Your task to perform on an android device: Add "lg ultragear" to the cart on ebay, then select checkout. Image 0: 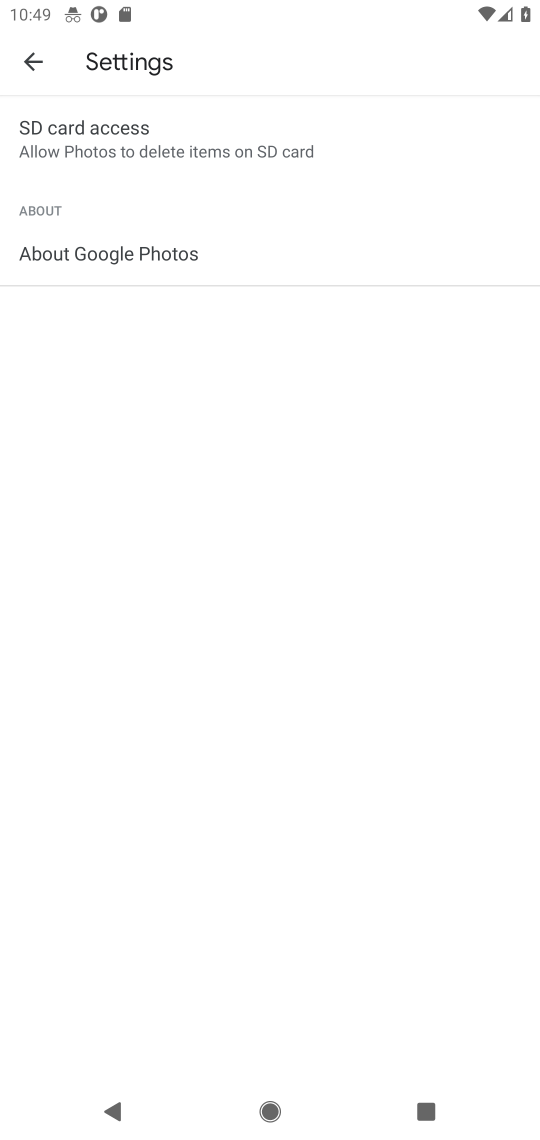
Step 0: press home button
Your task to perform on an android device: Add "lg ultragear" to the cart on ebay, then select checkout. Image 1: 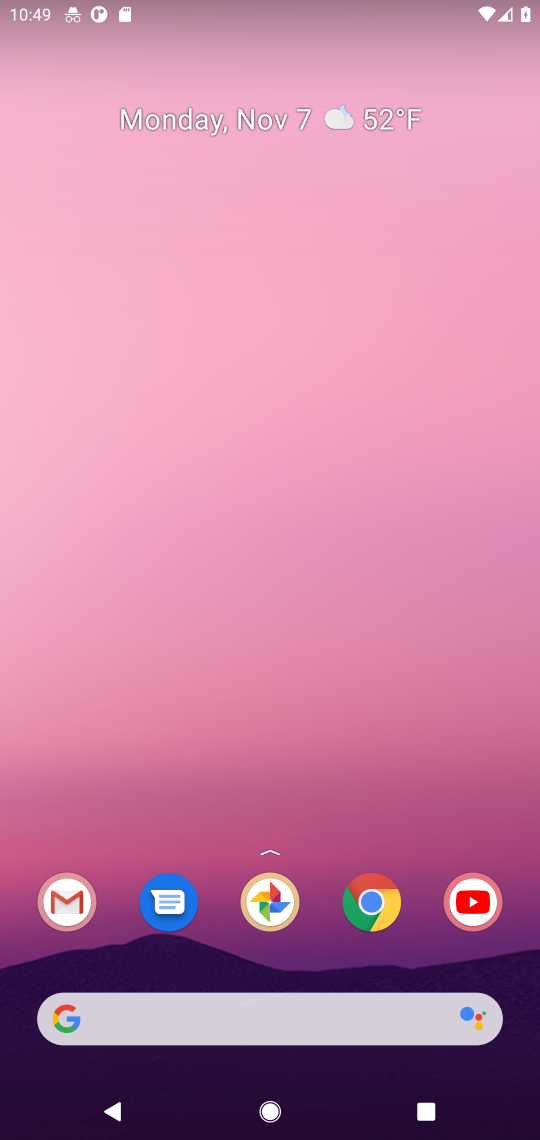
Step 1: click (372, 899)
Your task to perform on an android device: Add "lg ultragear" to the cart on ebay, then select checkout. Image 2: 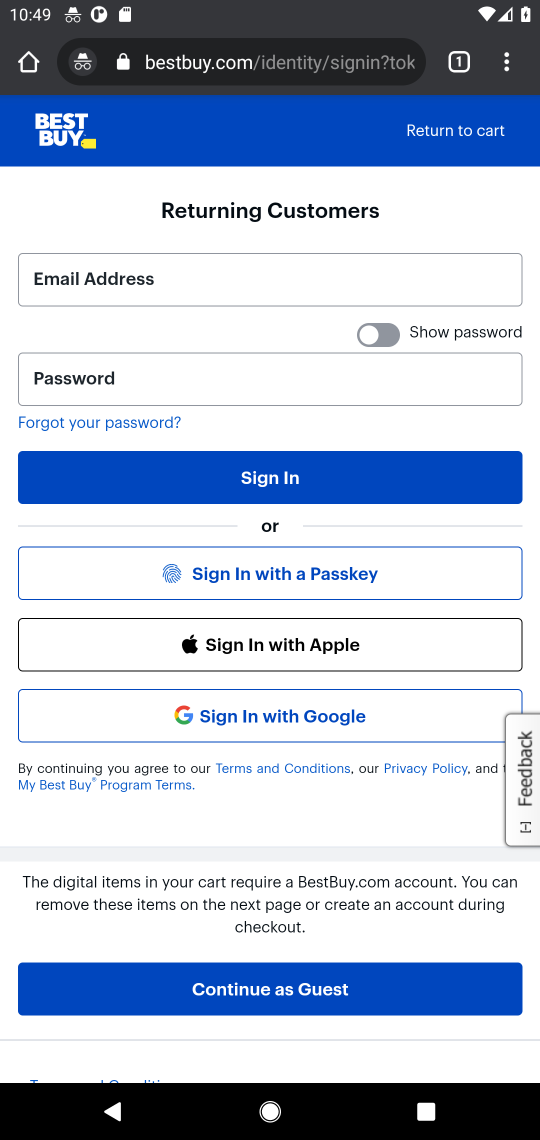
Step 2: click (182, 58)
Your task to perform on an android device: Add "lg ultragear" to the cart on ebay, then select checkout. Image 3: 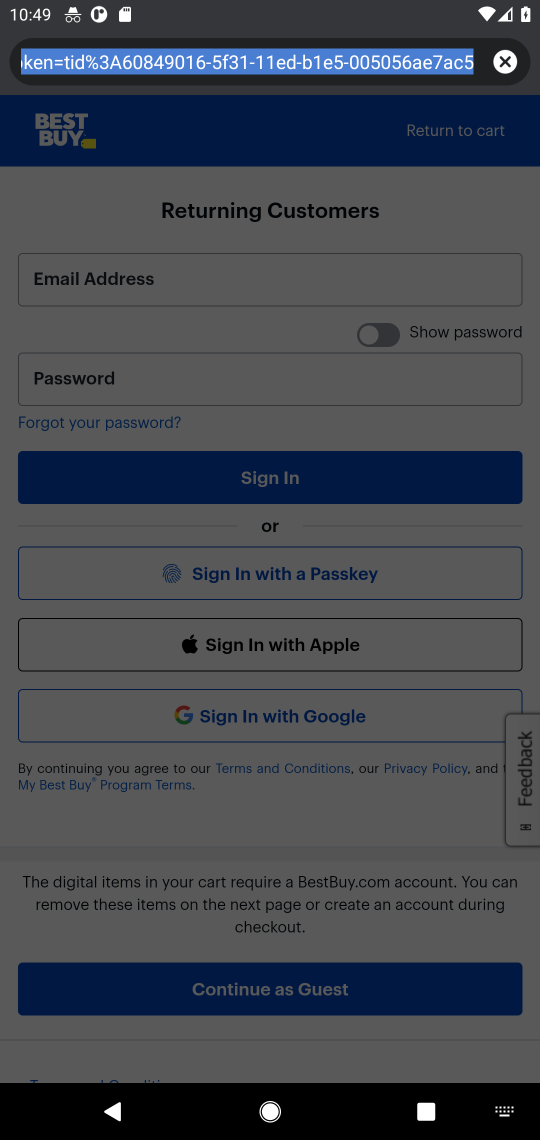
Step 3: type "ebay.com"
Your task to perform on an android device: Add "lg ultragear" to the cart on ebay, then select checkout. Image 4: 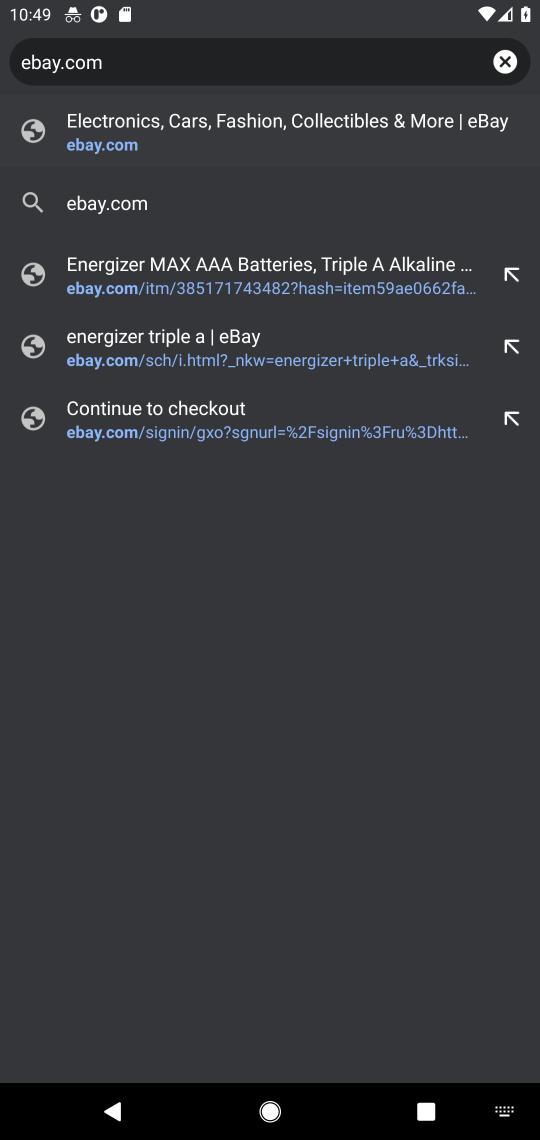
Step 4: click (107, 139)
Your task to perform on an android device: Add "lg ultragear" to the cart on ebay, then select checkout. Image 5: 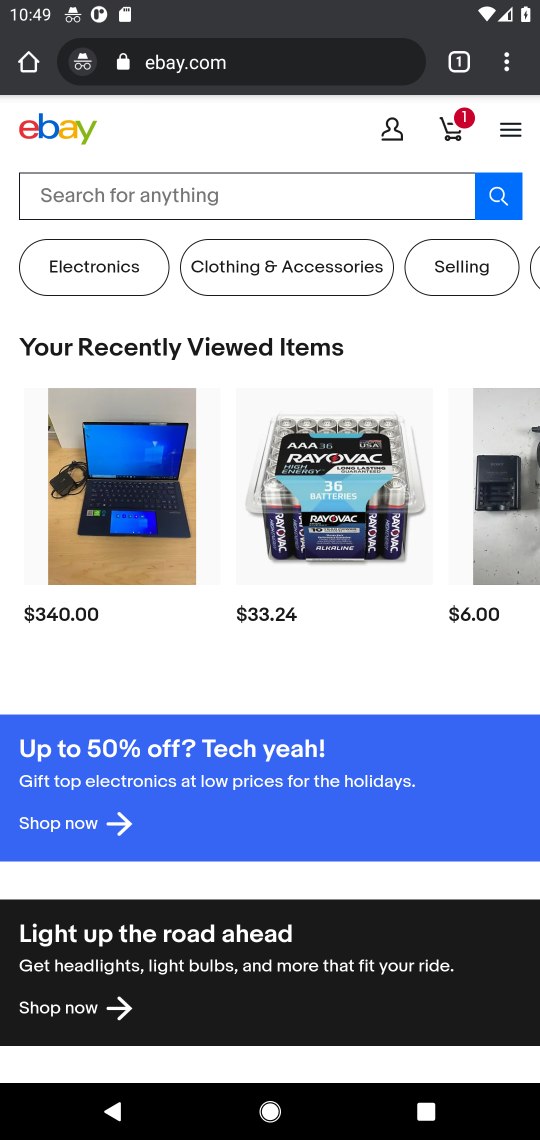
Step 5: click (70, 202)
Your task to perform on an android device: Add "lg ultragear" to the cart on ebay, then select checkout. Image 6: 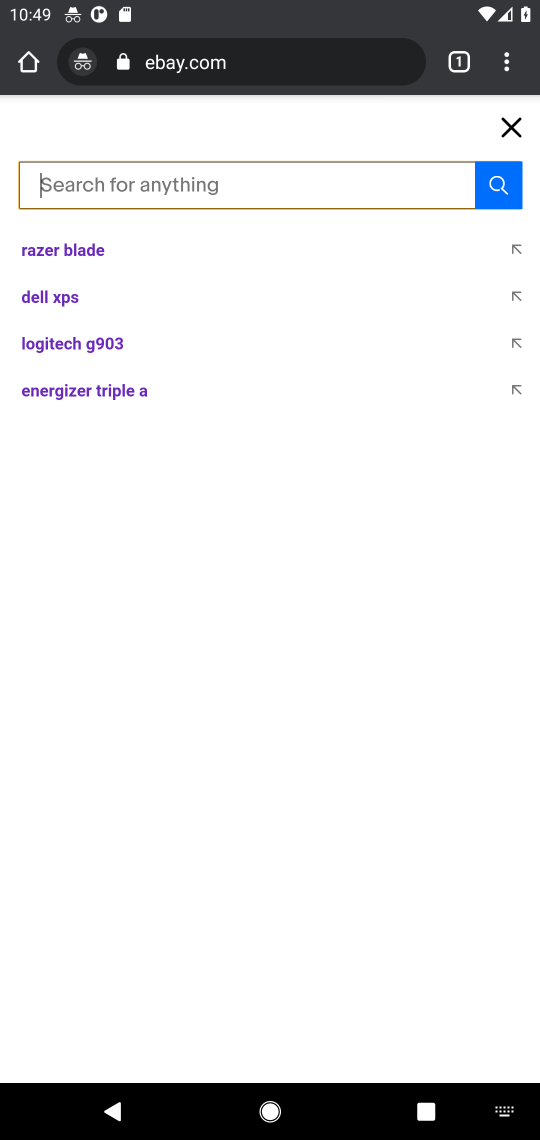
Step 6: type "lg ultragear"
Your task to perform on an android device: Add "lg ultragear" to the cart on ebay, then select checkout. Image 7: 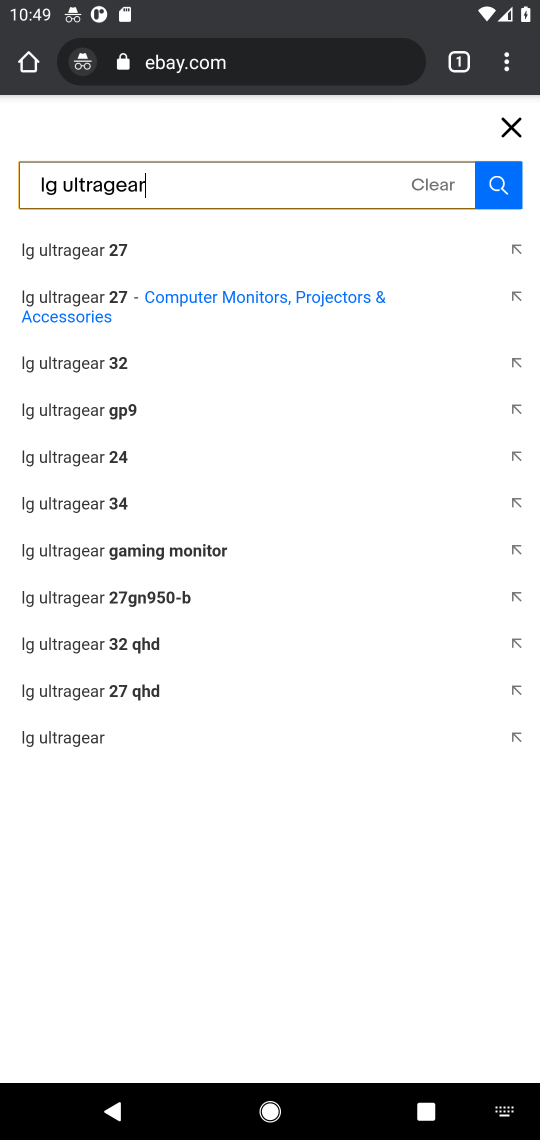
Step 7: click (56, 744)
Your task to perform on an android device: Add "lg ultragear" to the cart on ebay, then select checkout. Image 8: 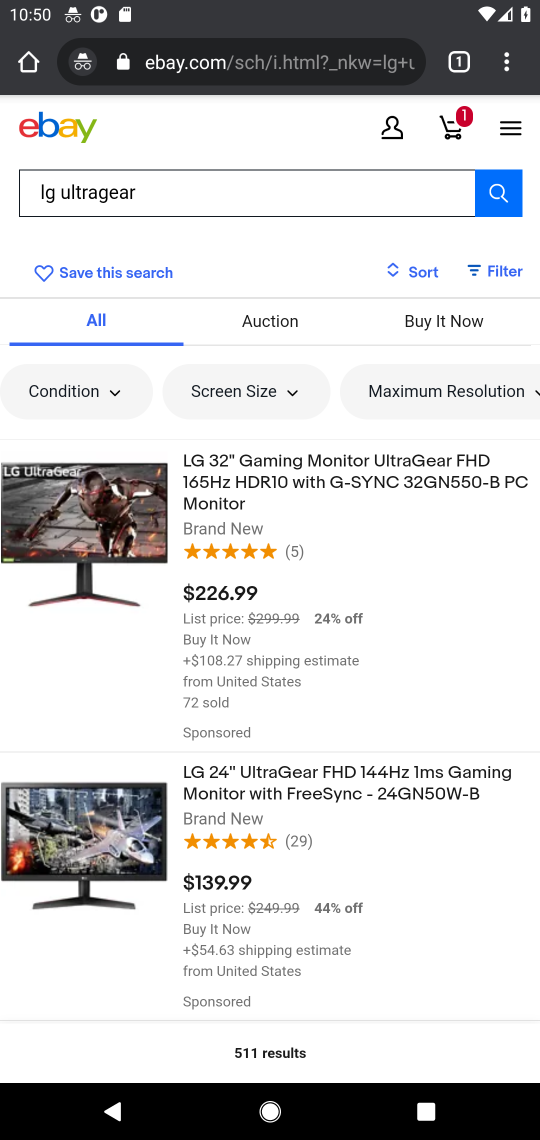
Step 8: click (74, 512)
Your task to perform on an android device: Add "lg ultragear" to the cart on ebay, then select checkout. Image 9: 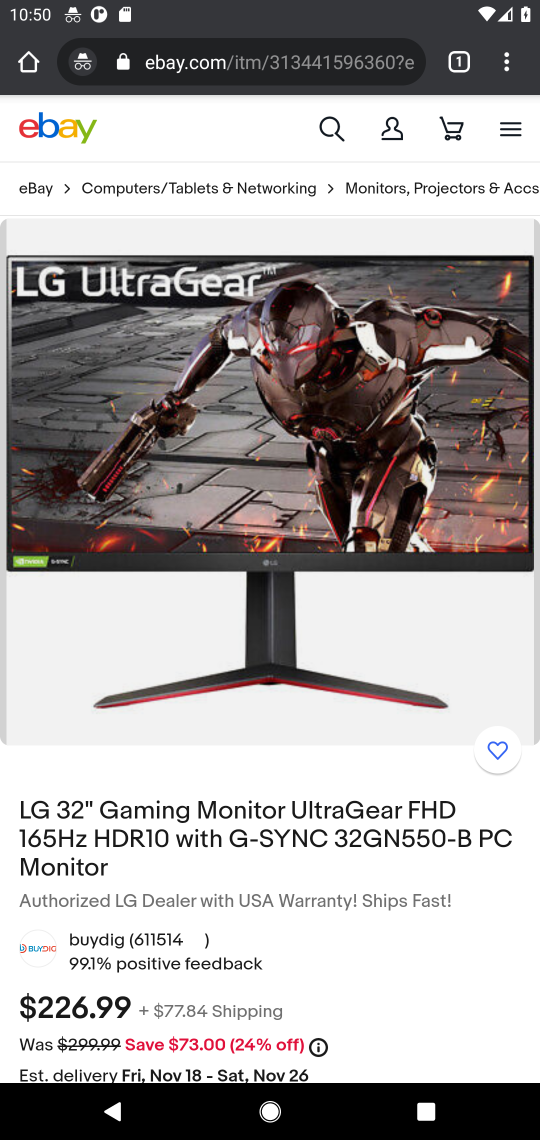
Step 9: drag from (298, 809) to (286, 281)
Your task to perform on an android device: Add "lg ultragear" to the cart on ebay, then select checkout. Image 10: 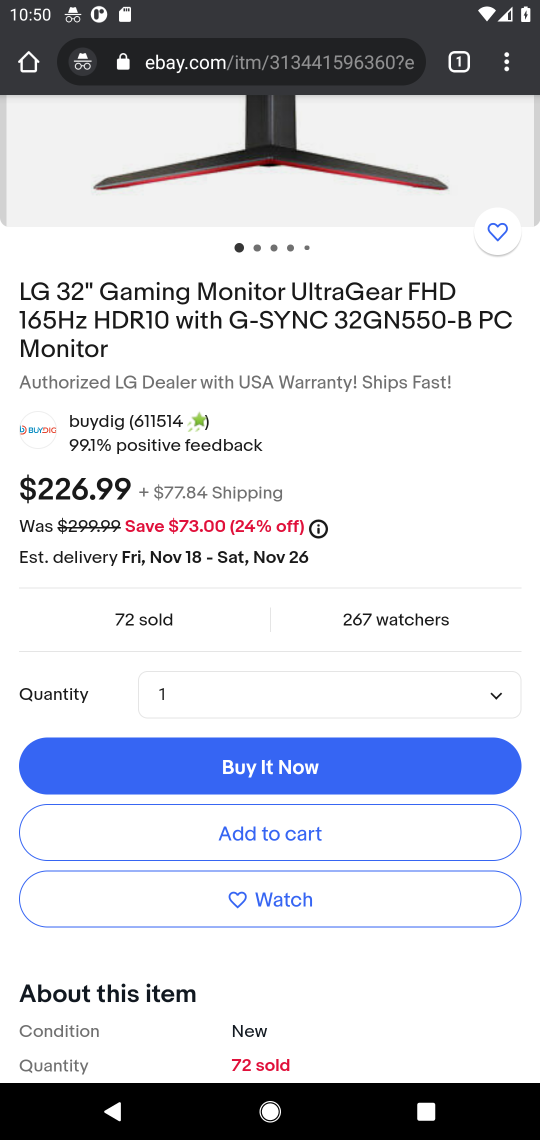
Step 10: click (260, 835)
Your task to perform on an android device: Add "lg ultragear" to the cart on ebay, then select checkout. Image 11: 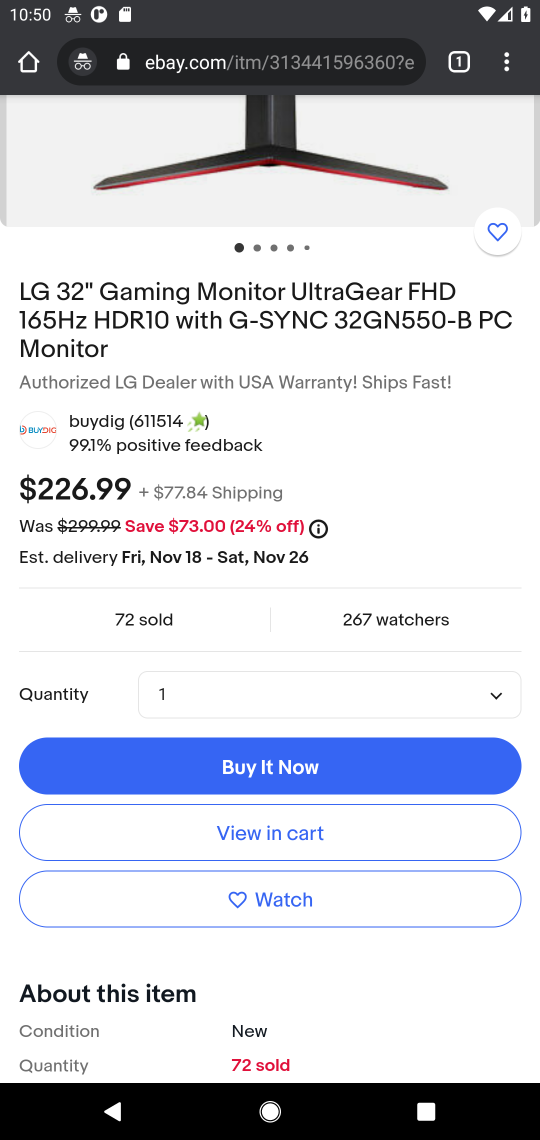
Step 11: click (260, 835)
Your task to perform on an android device: Add "lg ultragear" to the cart on ebay, then select checkout. Image 12: 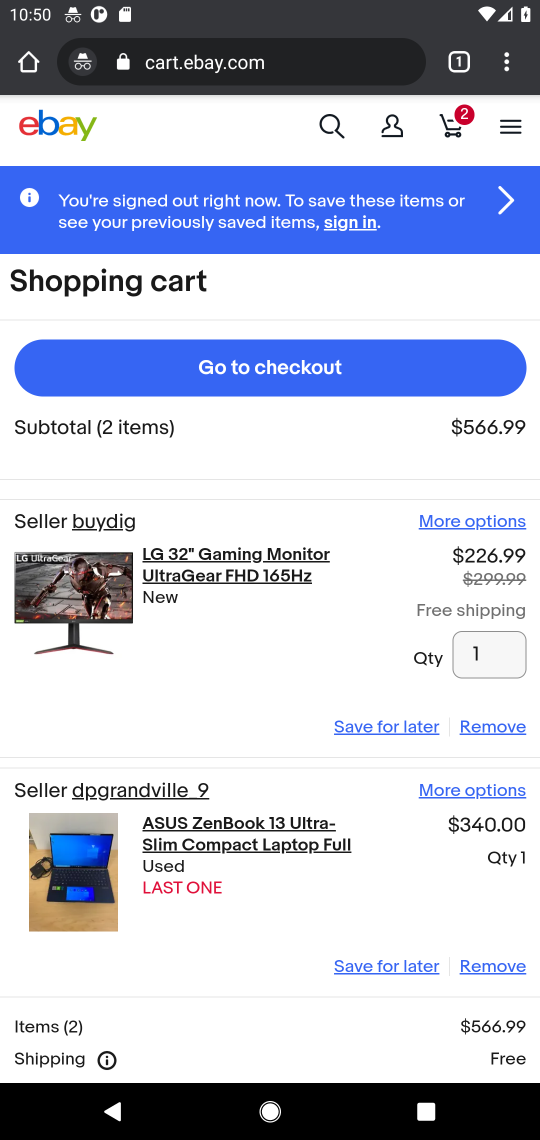
Step 12: click (262, 374)
Your task to perform on an android device: Add "lg ultragear" to the cart on ebay, then select checkout. Image 13: 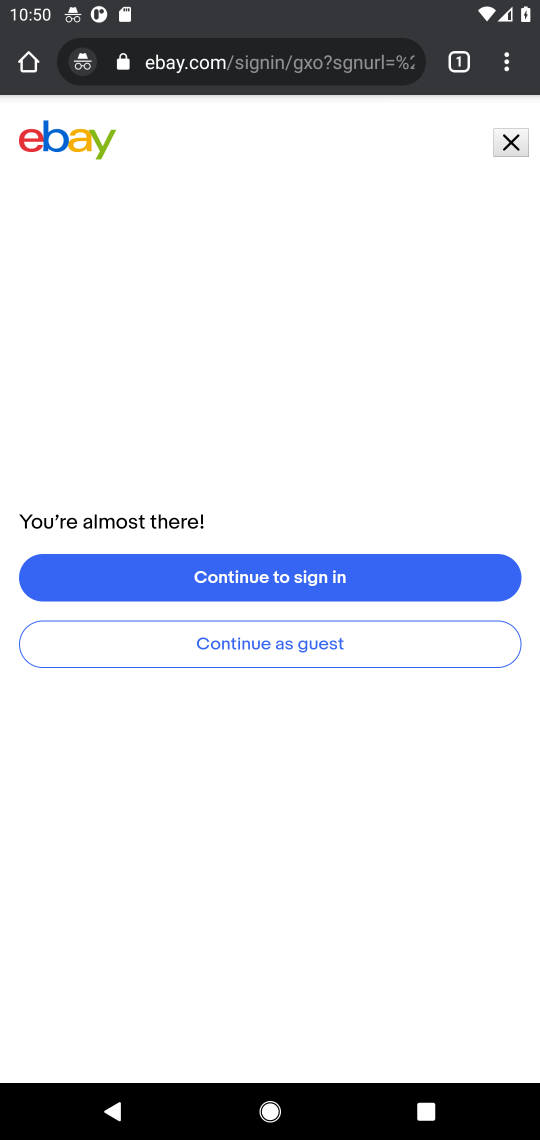
Step 13: task complete